Your task to perform on an android device: Open Google Chrome Image 0: 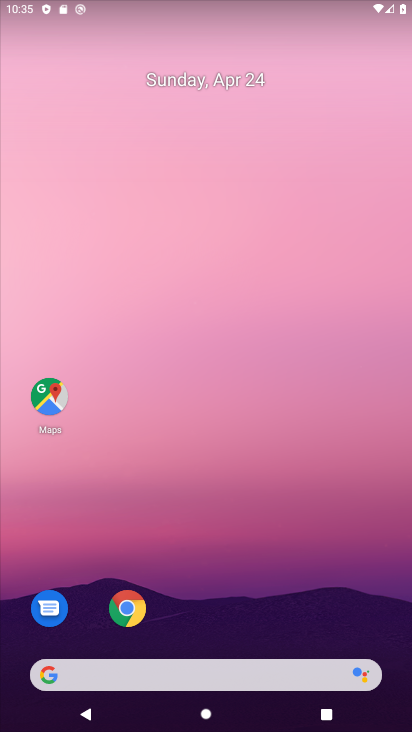
Step 0: drag from (212, 496) to (178, 20)
Your task to perform on an android device: Open Google Chrome Image 1: 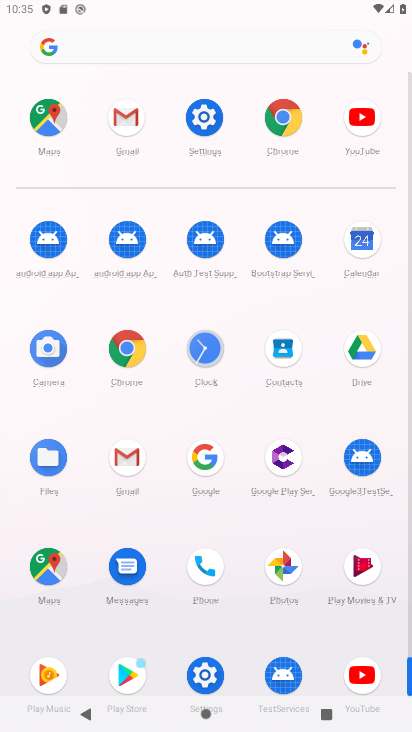
Step 1: click (283, 114)
Your task to perform on an android device: Open Google Chrome Image 2: 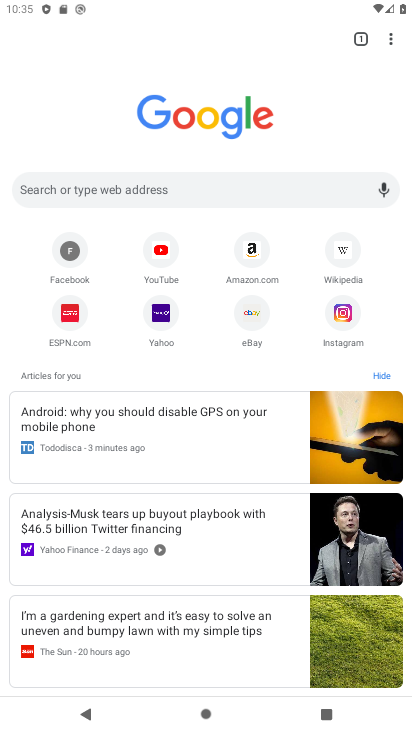
Step 2: task complete